Your task to perform on an android device: Go to Amazon Image 0: 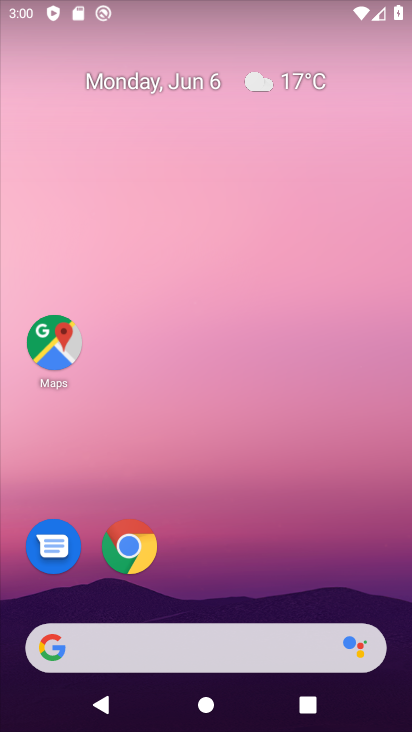
Step 0: drag from (282, 579) to (326, 5)
Your task to perform on an android device: Go to Amazon Image 1: 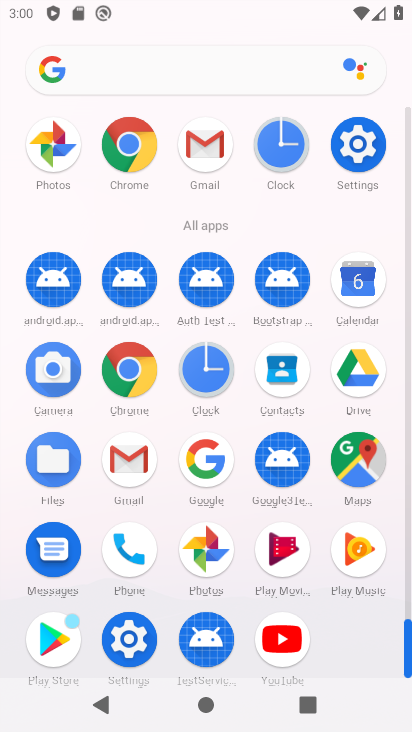
Step 1: click (143, 146)
Your task to perform on an android device: Go to Amazon Image 2: 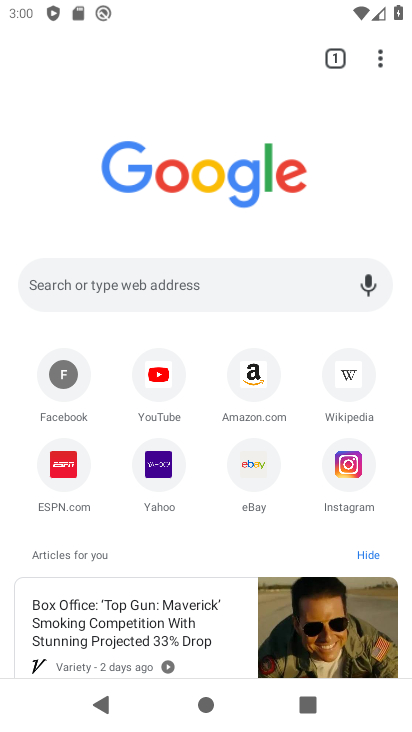
Step 2: click (238, 367)
Your task to perform on an android device: Go to Amazon Image 3: 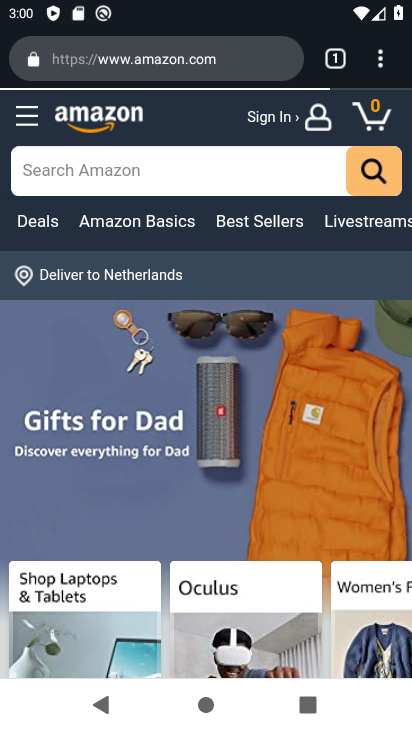
Step 3: task complete